Your task to perform on an android device: delete the emails in spam in the gmail app Image 0: 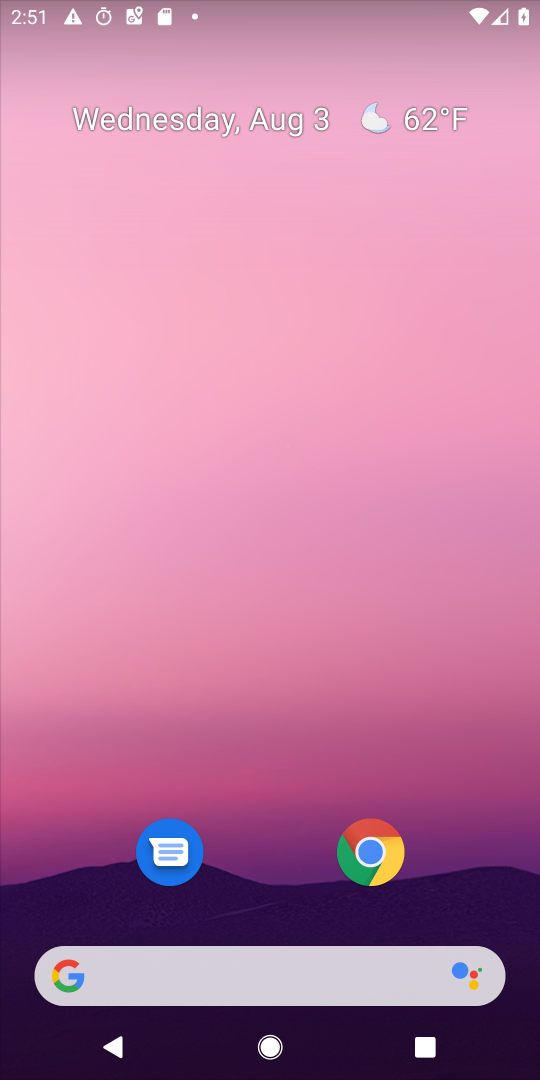
Step 0: drag from (533, 894) to (216, 119)
Your task to perform on an android device: delete the emails in spam in the gmail app Image 1: 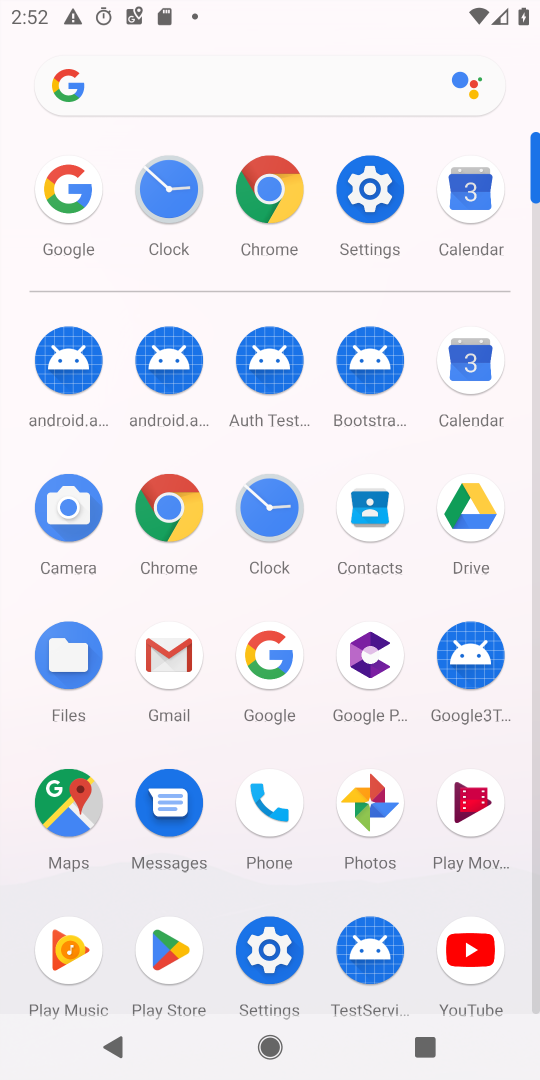
Step 1: click (184, 651)
Your task to perform on an android device: delete the emails in spam in the gmail app Image 2: 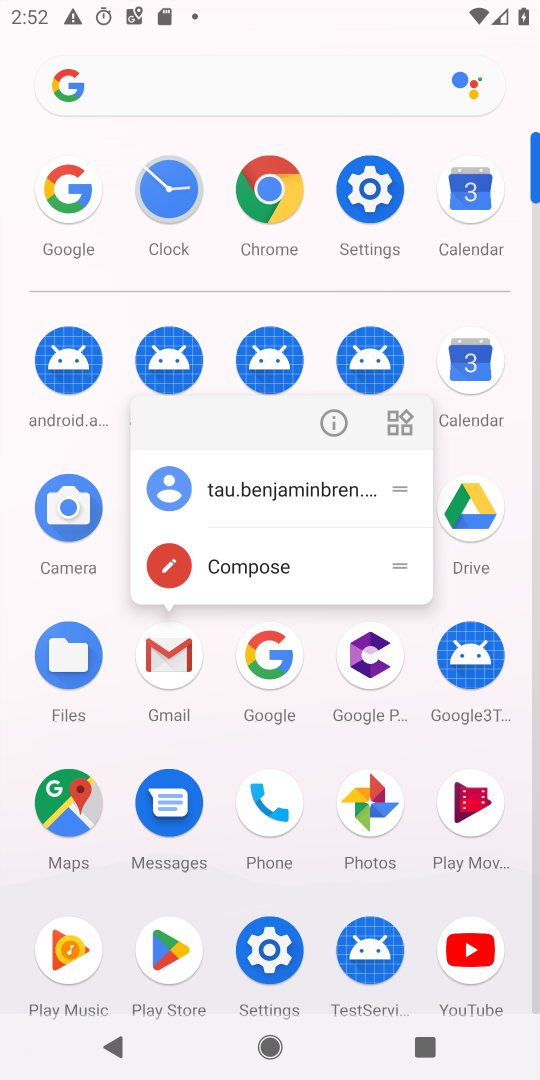
Step 2: click (188, 659)
Your task to perform on an android device: delete the emails in spam in the gmail app Image 3: 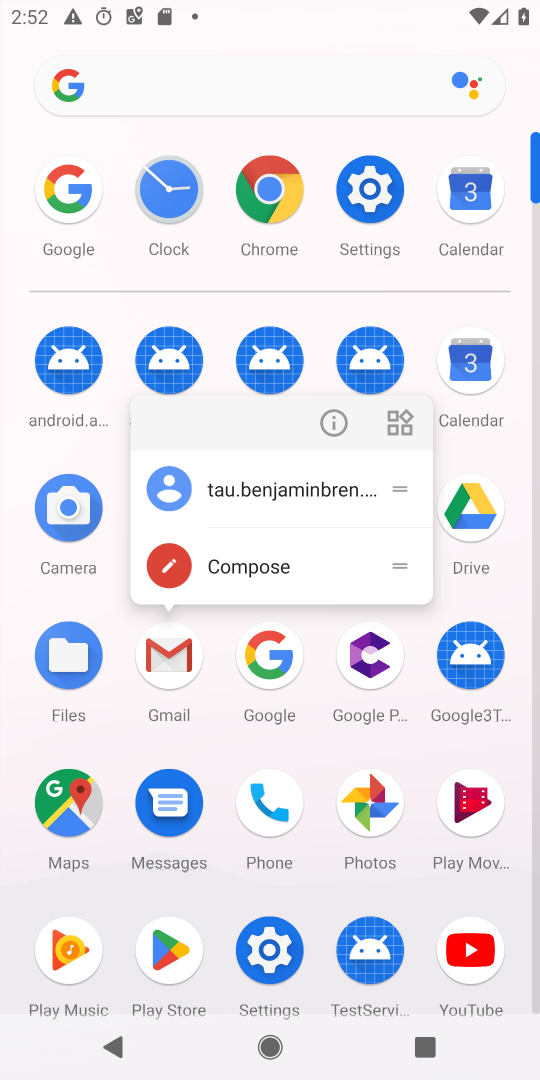
Step 3: click (190, 662)
Your task to perform on an android device: delete the emails in spam in the gmail app Image 4: 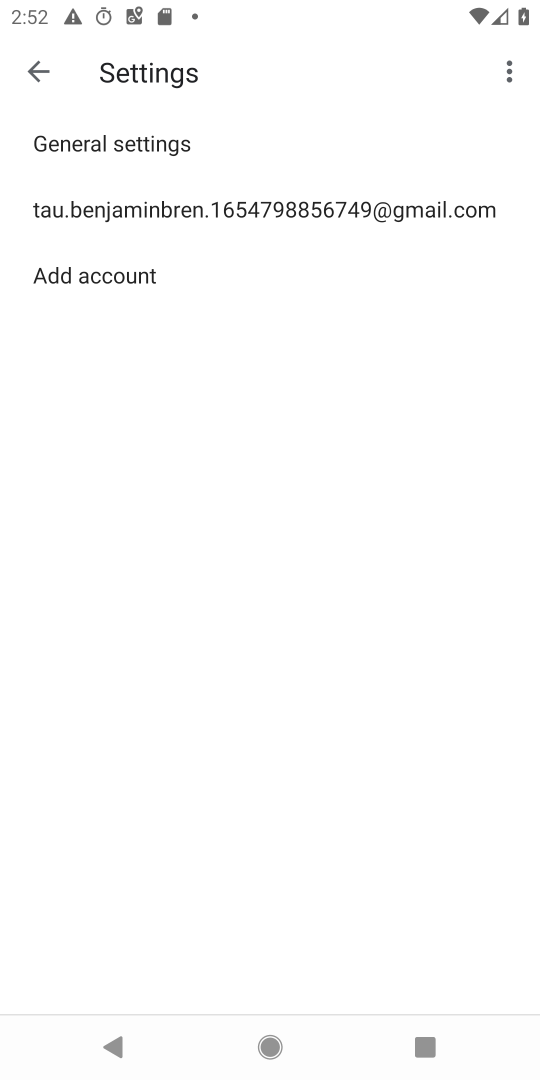
Step 4: task complete